Your task to perform on an android device: turn pop-ups off in chrome Image 0: 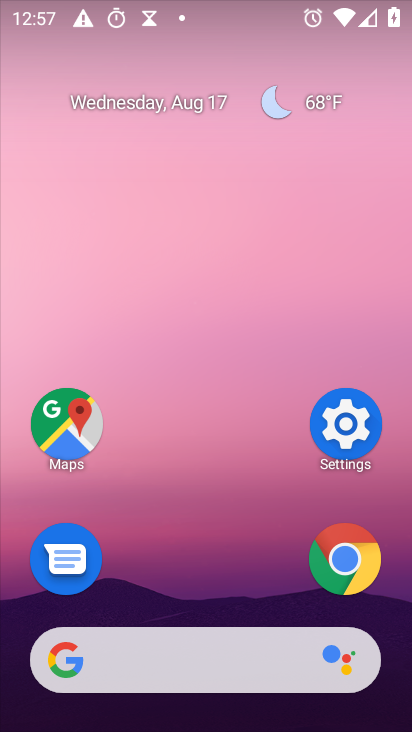
Step 0: press home button
Your task to perform on an android device: turn pop-ups off in chrome Image 1: 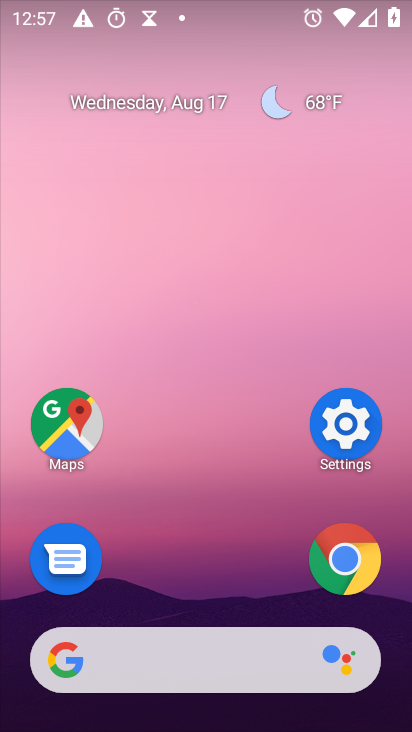
Step 1: click (354, 563)
Your task to perform on an android device: turn pop-ups off in chrome Image 2: 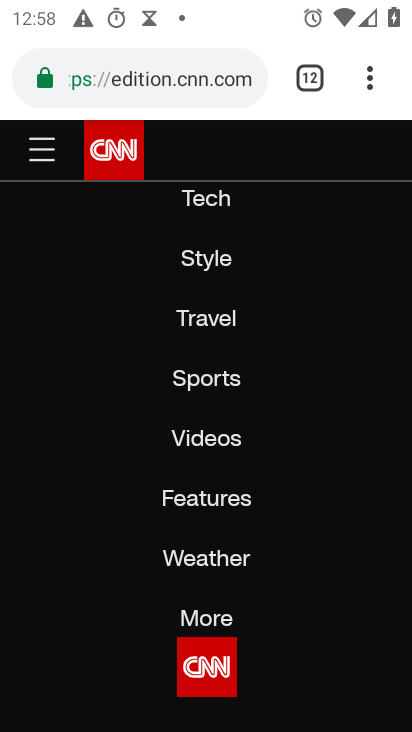
Step 2: drag from (362, 84) to (222, 605)
Your task to perform on an android device: turn pop-ups off in chrome Image 3: 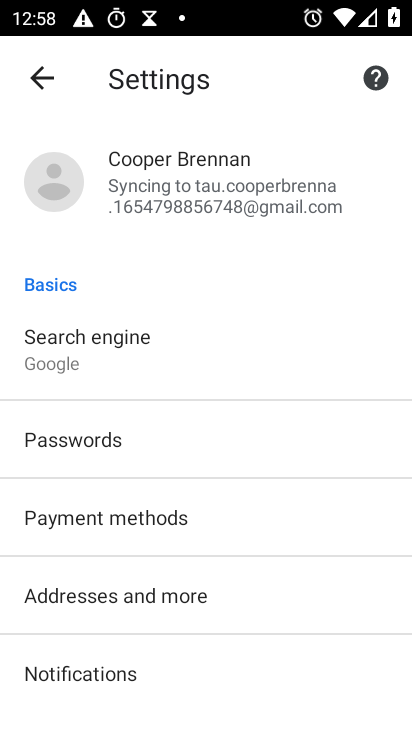
Step 3: drag from (204, 623) to (279, 117)
Your task to perform on an android device: turn pop-ups off in chrome Image 4: 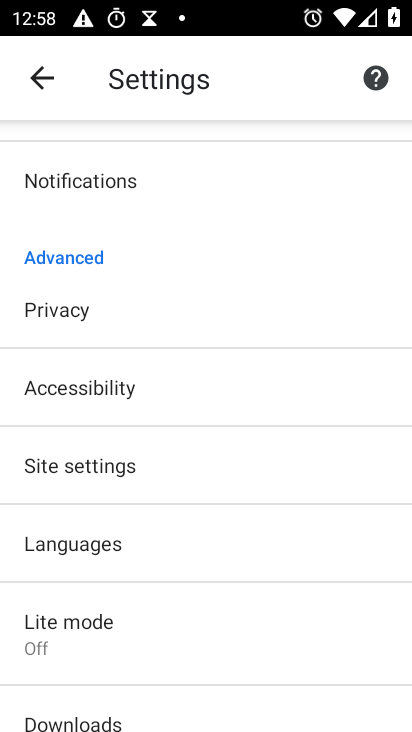
Step 4: click (126, 474)
Your task to perform on an android device: turn pop-ups off in chrome Image 5: 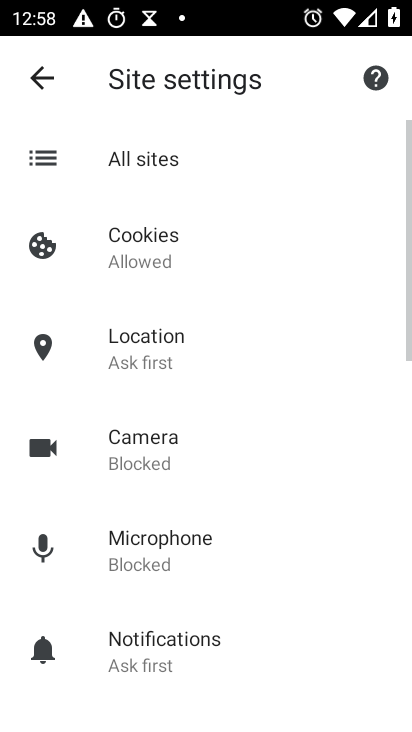
Step 5: drag from (240, 589) to (298, 210)
Your task to perform on an android device: turn pop-ups off in chrome Image 6: 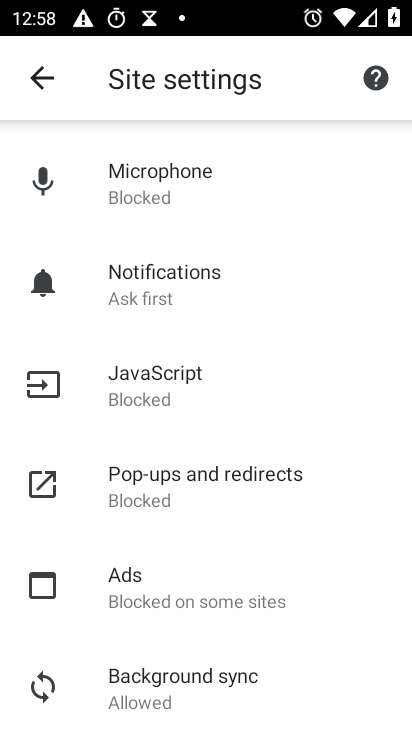
Step 6: click (190, 476)
Your task to perform on an android device: turn pop-ups off in chrome Image 7: 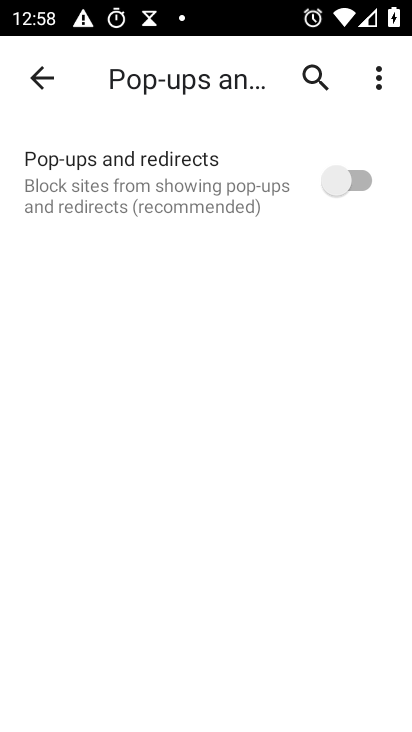
Step 7: task complete